Your task to perform on an android device: Open maps Image 0: 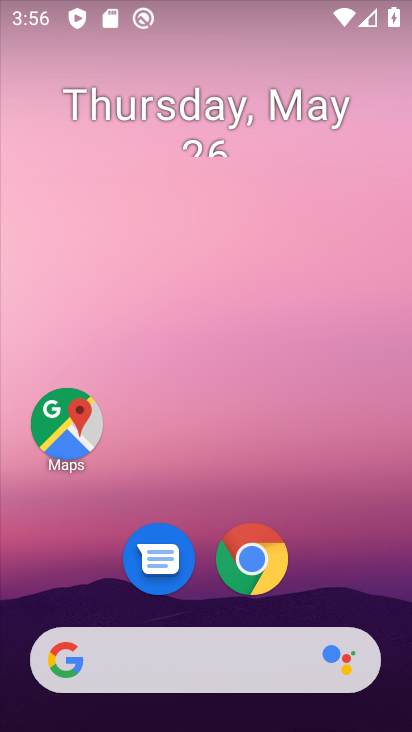
Step 0: click (64, 418)
Your task to perform on an android device: Open maps Image 1: 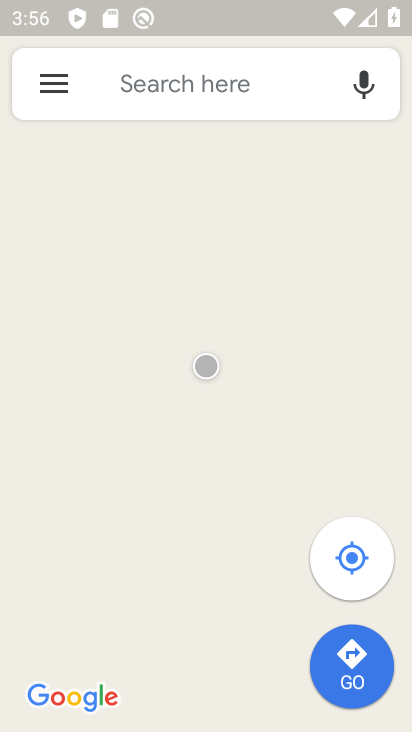
Step 1: task complete